Your task to perform on an android device: change notification settings in the gmail app Image 0: 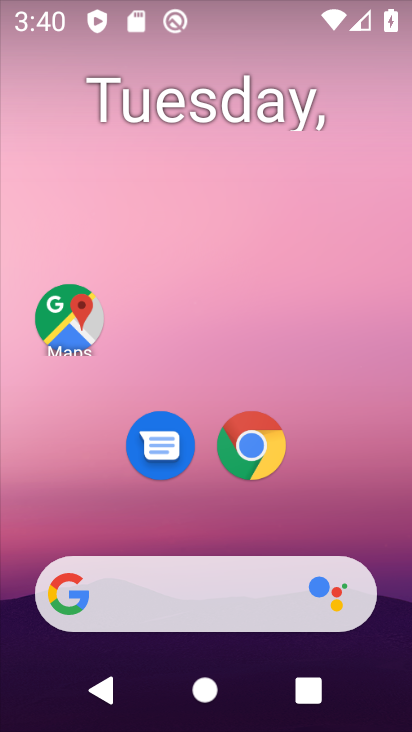
Step 0: drag from (370, 530) to (379, 103)
Your task to perform on an android device: change notification settings in the gmail app Image 1: 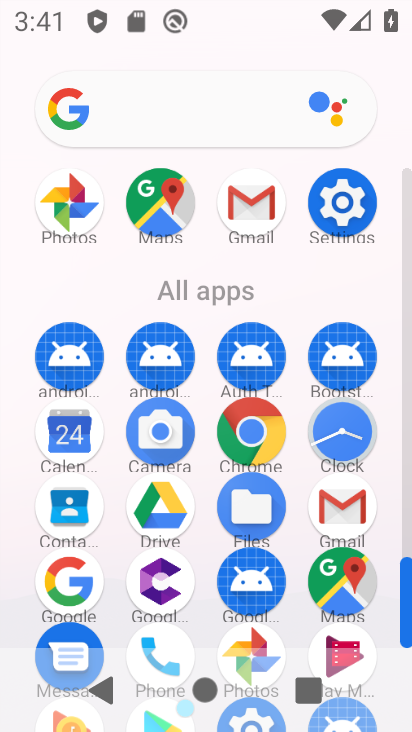
Step 1: click (239, 191)
Your task to perform on an android device: change notification settings in the gmail app Image 2: 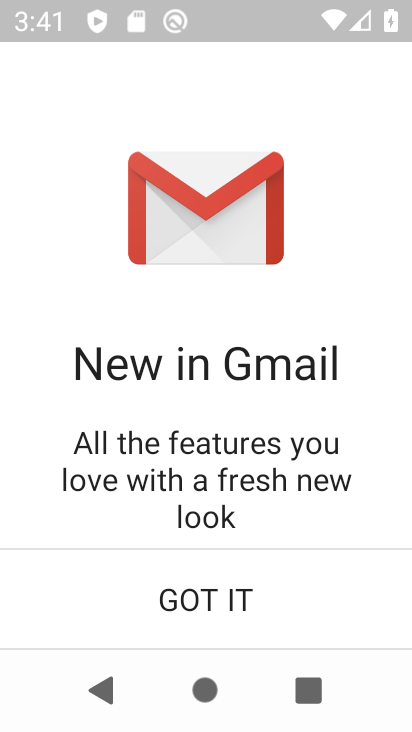
Step 2: click (177, 597)
Your task to perform on an android device: change notification settings in the gmail app Image 3: 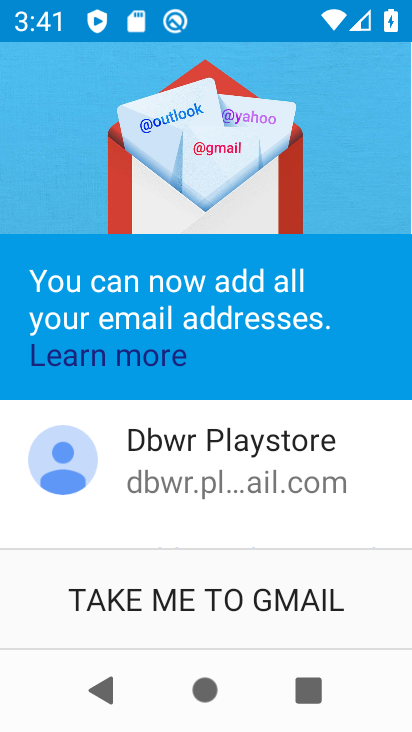
Step 3: click (177, 597)
Your task to perform on an android device: change notification settings in the gmail app Image 4: 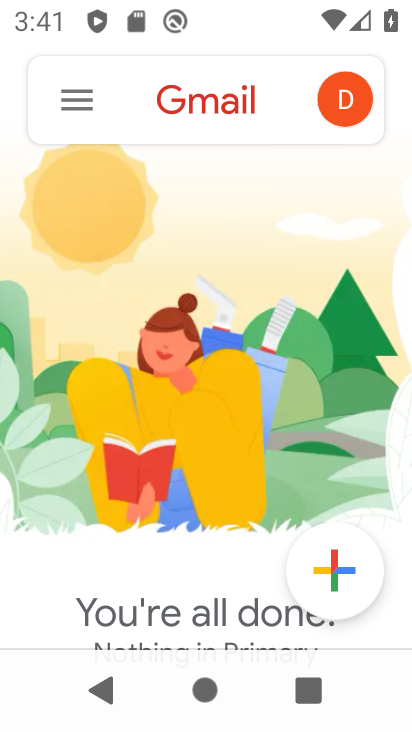
Step 4: click (81, 96)
Your task to perform on an android device: change notification settings in the gmail app Image 5: 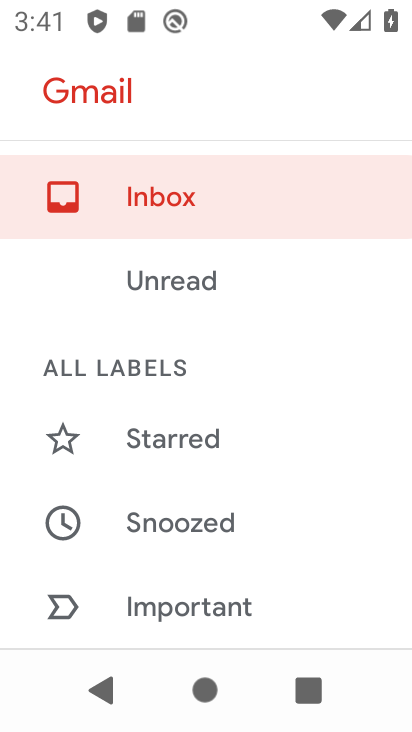
Step 5: drag from (152, 585) to (164, 362)
Your task to perform on an android device: change notification settings in the gmail app Image 6: 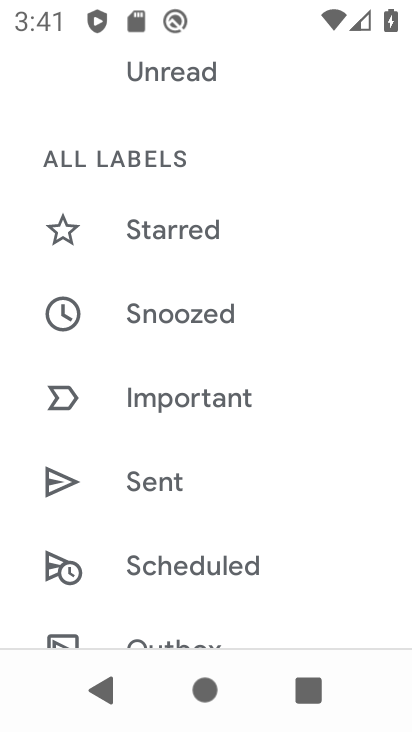
Step 6: drag from (379, 610) to (411, 356)
Your task to perform on an android device: change notification settings in the gmail app Image 7: 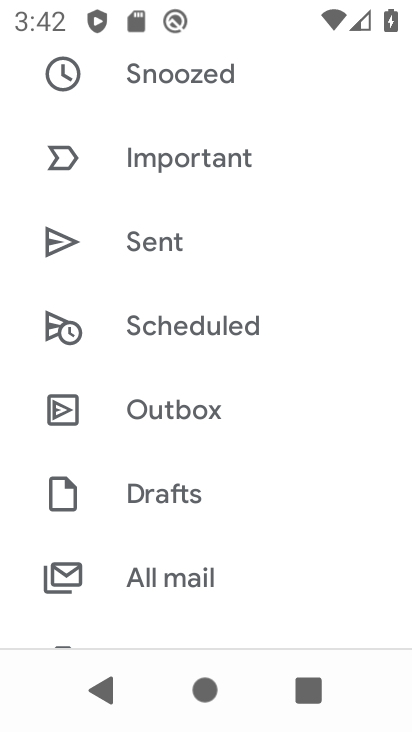
Step 7: drag from (336, 503) to (317, 245)
Your task to perform on an android device: change notification settings in the gmail app Image 8: 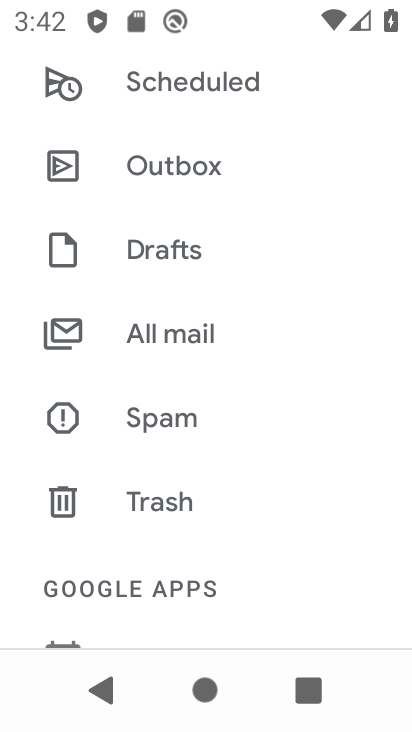
Step 8: drag from (258, 631) to (232, 302)
Your task to perform on an android device: change notification settings in the gmail app Image 9: 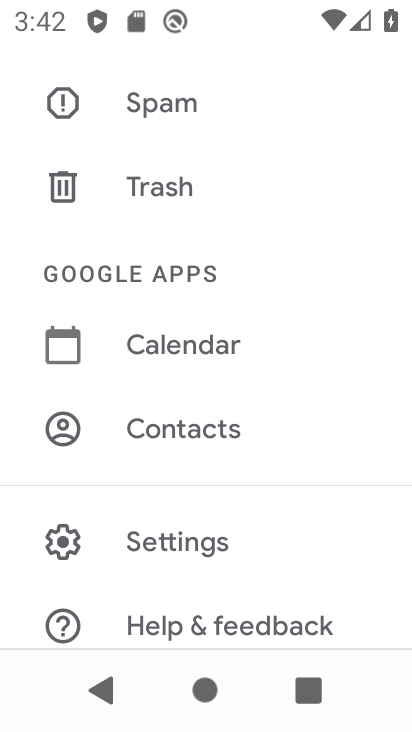
Step 9: click (224, 537)
Your task to perform on an android device: change notification settings in the gmail app Image 10: 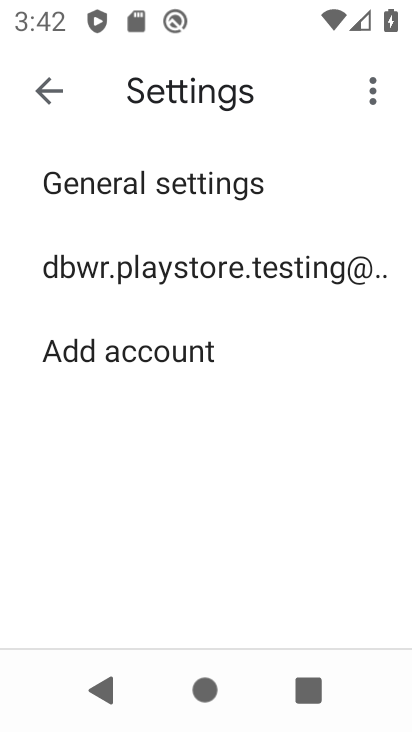
Step 10: click (196, 262)
Your task to perform on an android device: change notification settings in the gmail app Image 11: 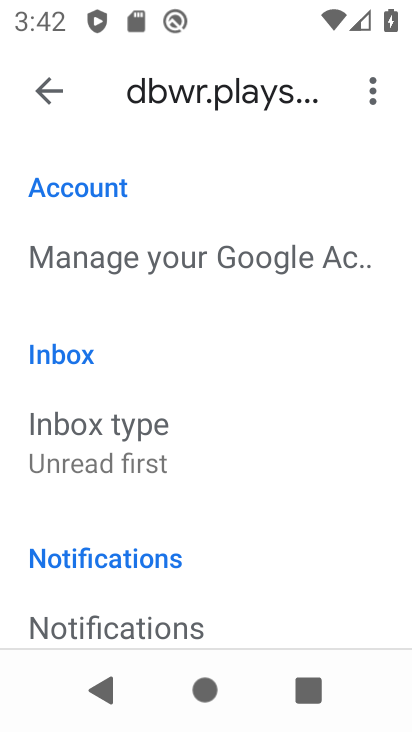
Step 11: drag from (289, 556) to (253, 226)
Your task to perform on an android device: change notification settings in the gmail app Image 12: 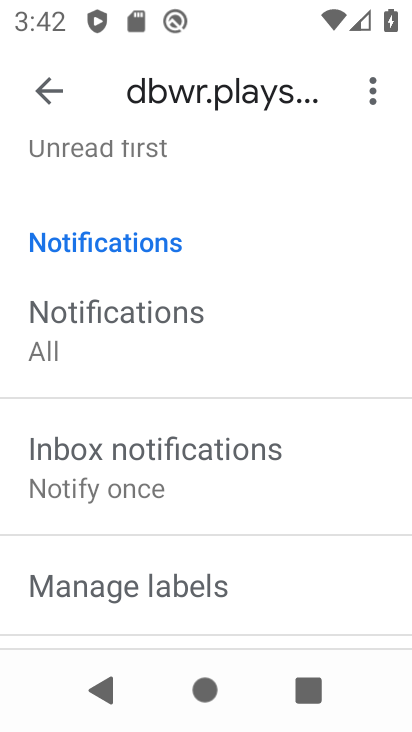
Step 12: click (215, 314)
Your task to perform on an android device: change notification settings in the gmail app Image 13: 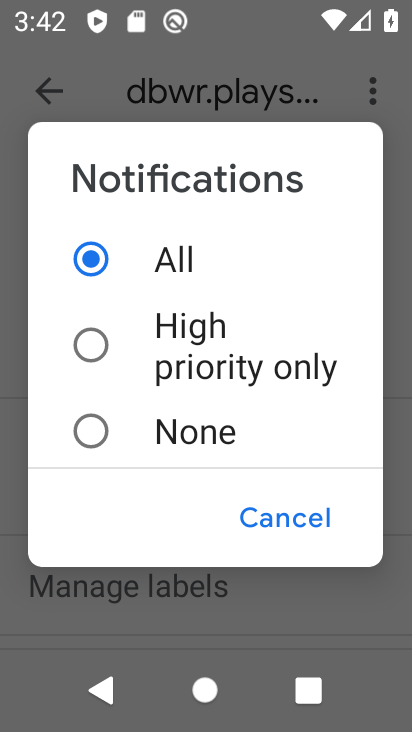
Step 13: click (223, 427)
Your task to perform on an android device: change notification settings in the gmail app Image 14: 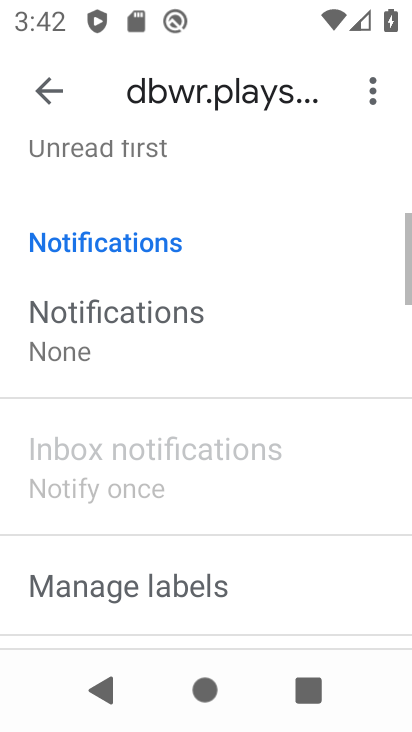
Step 14: drag from (269, 549) to (243, 260)
Your task to perform on an android device: change notification settings in the gmail app Image 15: 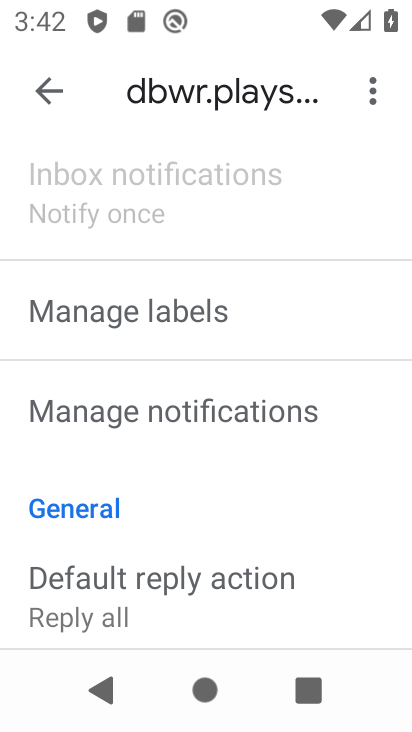
Step 15: click (172, 425)
Your task to perform on an android device: change notification settings in the gmail app Image 16: 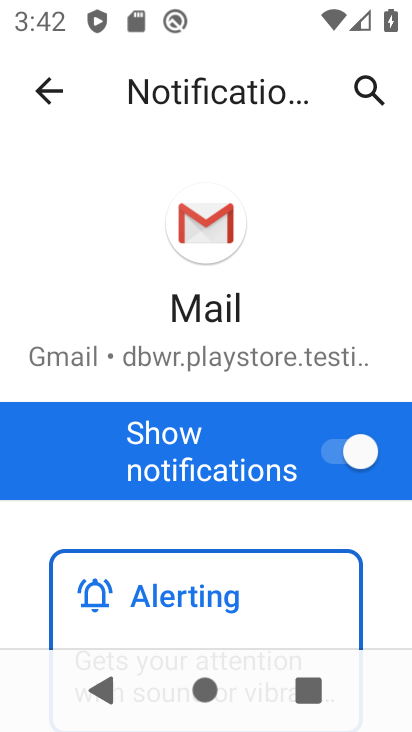
Step 16: click (319, 450)
Your task to perform on an android device: change notification settings in the gmail app Image 17: 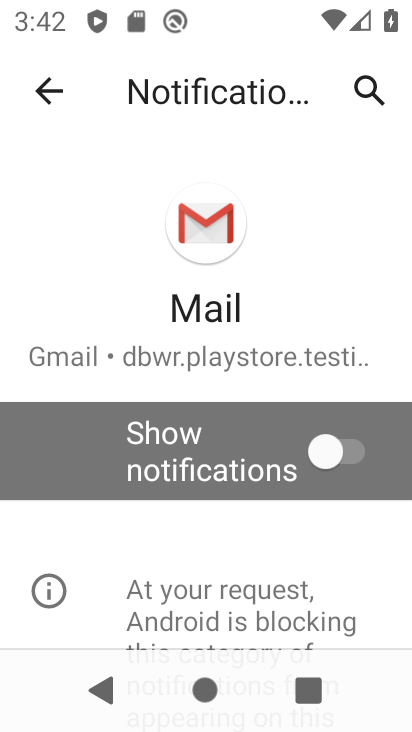
Step 17: task complete